Your task to perform on an android device: Open battery settings Image 0: 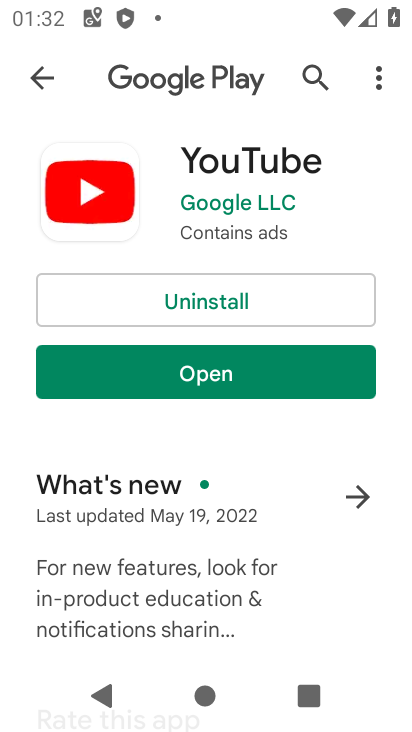
Step 0: press home button
Your task to perform on an android device: Open battery settings Image 1: 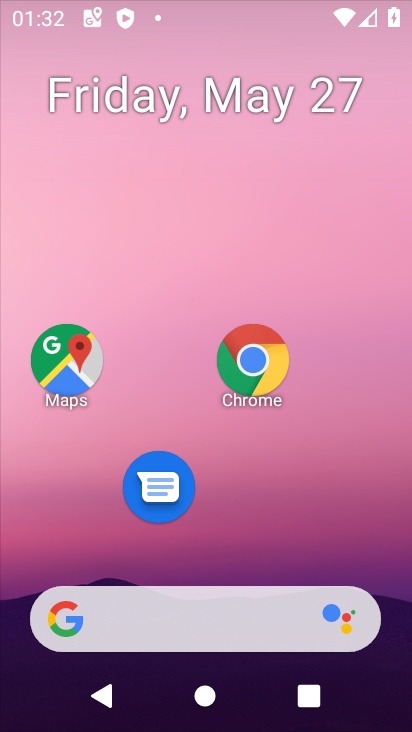
Step 1: drag from (239, 547) to (252, 47)
Your task to perform on an android device: Open battery settings Image 2: 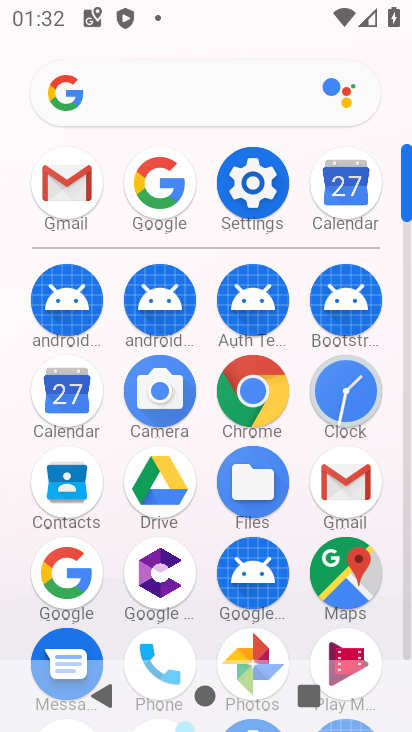
Step 2: click (243, 175)
Your task to perform on an android device: Open battery settings Image 3: 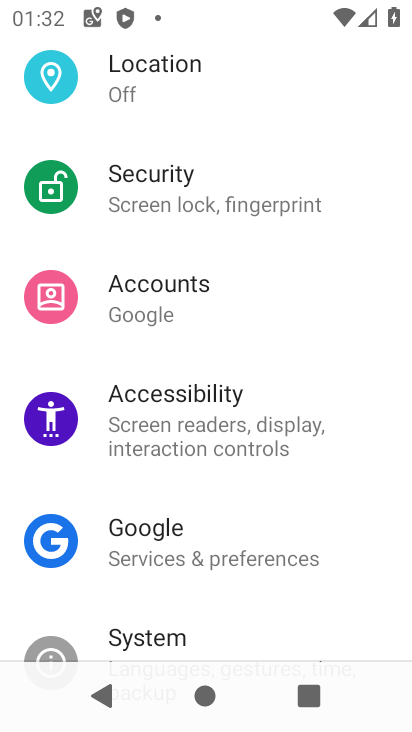
Step 3: drag from (233, 151) to (289, 544)
Your task to perform on an android device: Open battery settings Image 4: 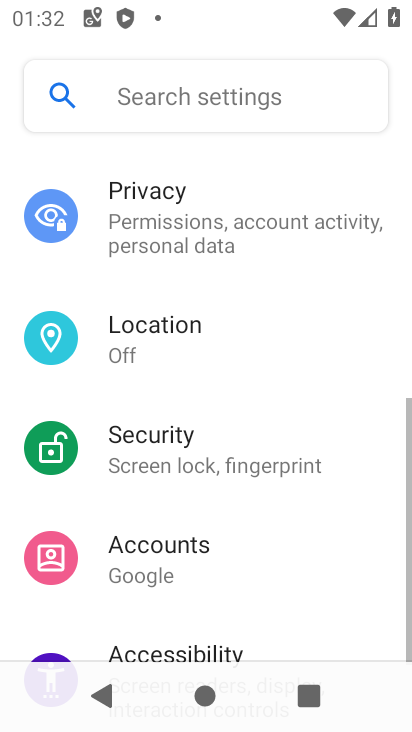
Step 4: drag from (233, 353) to (264, 602)
Your task to perform on an android device: Open battery settings Image 5: 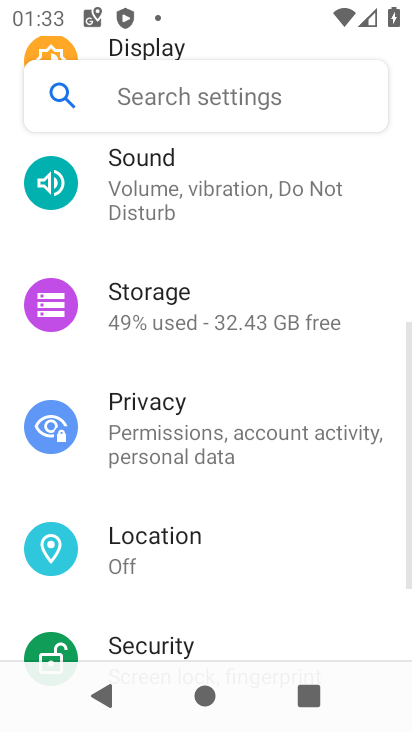
Step 5: drag from (197, 204) to (251, 593)
Your task to perform on an android device: Open battery settings Image 6: 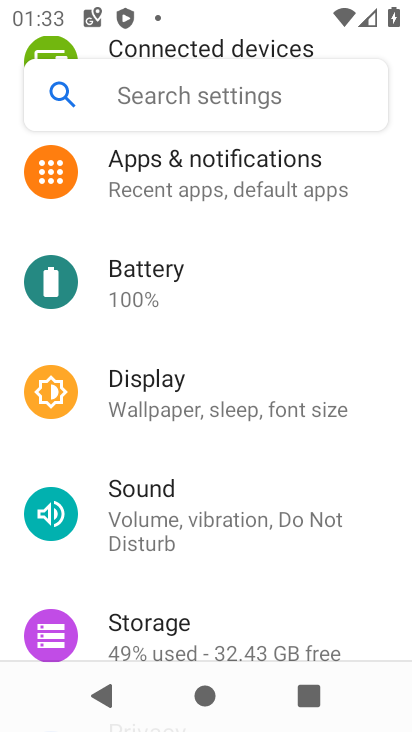
Step 6: click (163, 280)
Your task to perform on an android device: Open battery settings Image 7: 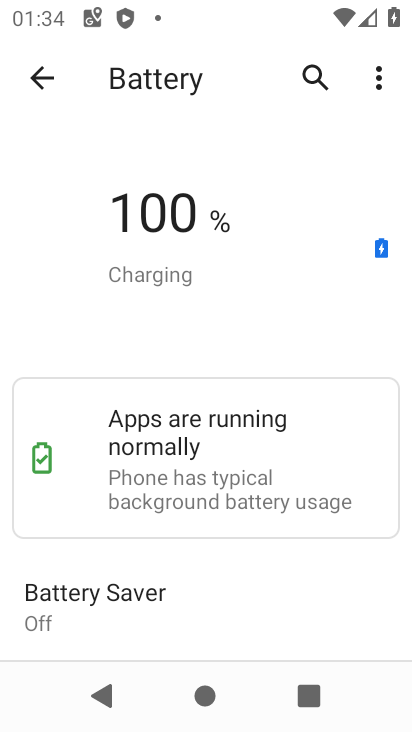
Step 7: task complete